Your task to perform on an android device: What's the weather going to be this weekend? Image 0: 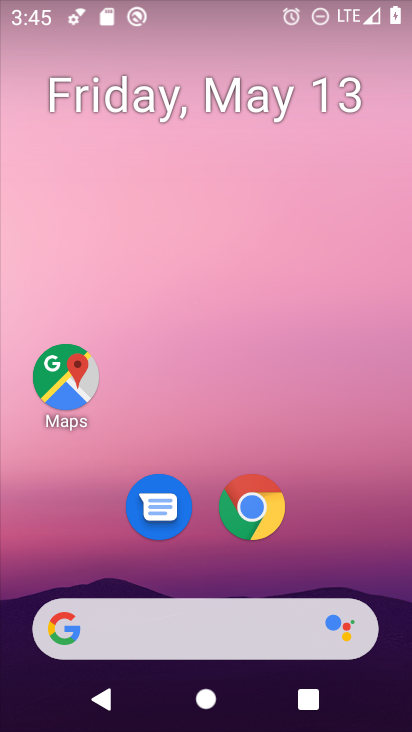
Step 0: drag from (357, 548) to (331, 236)
Your task to perform on an android device: What's the weather going to be this weekend? Image 1: 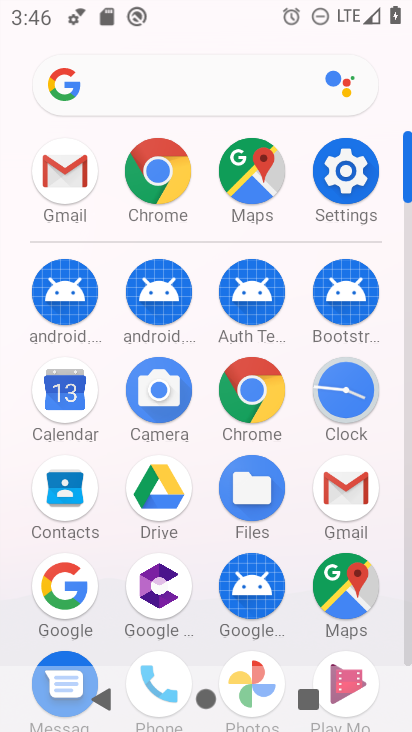
Step 1: click (63, 562)
Your task to perform on an android device: What's the weather going to be this weekend? Image 2: 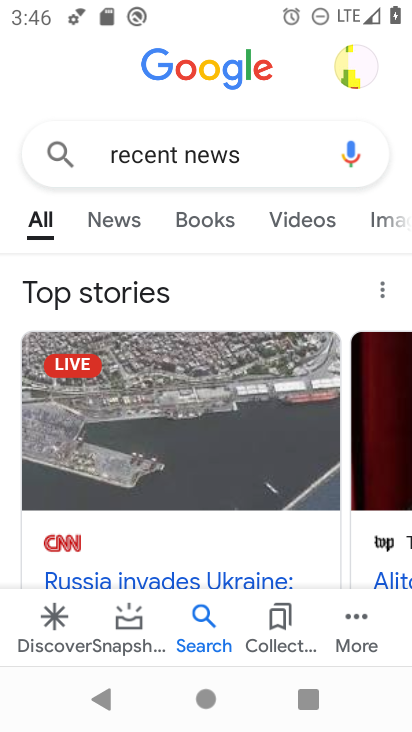
Step 2: drag from (239, 155) to (108, 151)
Your task to perform on an android device: What's the weather going to be this weekend? Image 3: 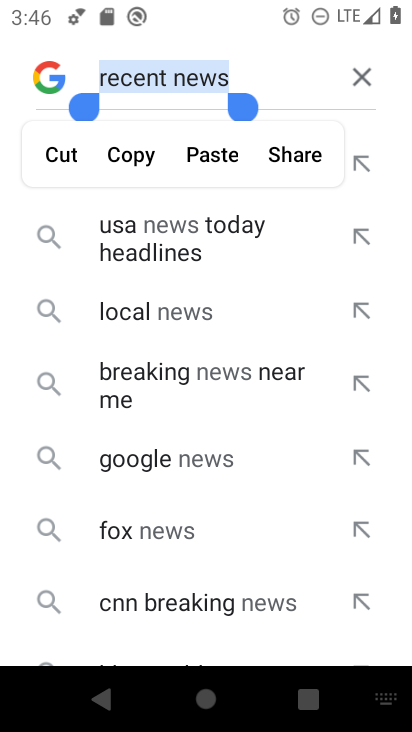
Step 3: click (348, 79)
Your task to perform on an android device: What's the weather going to be this weekend? Image 4: 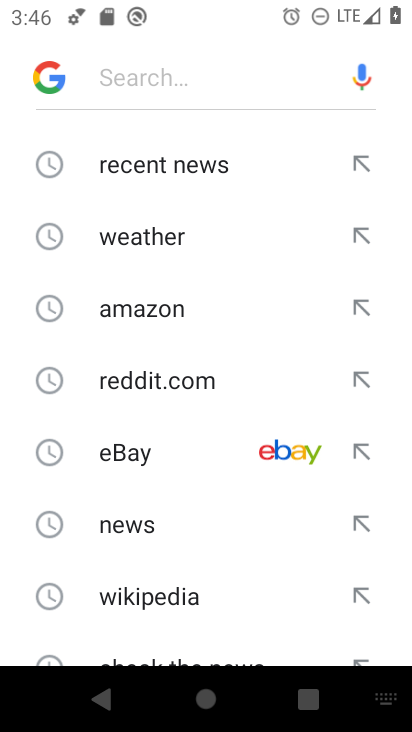
Step 4: click (209, 230)
Your task to perform on an android device: What's the weather going to be this weekend? Image 5: 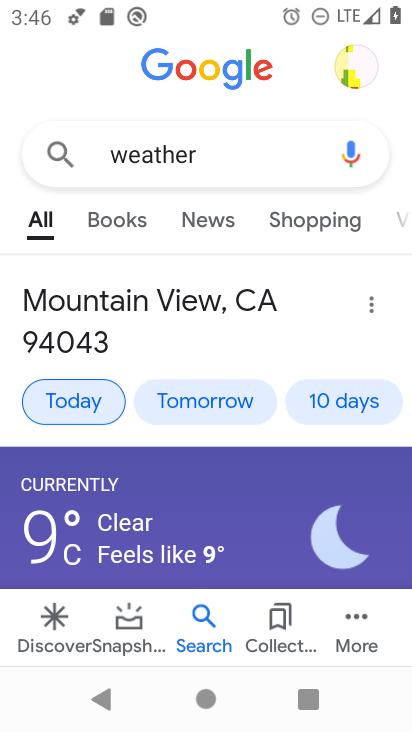
Step 5: drag from (155, 470) to (203, 239)
Your task to perform on an android device: What's the weather going to be this weekend? Image 6: 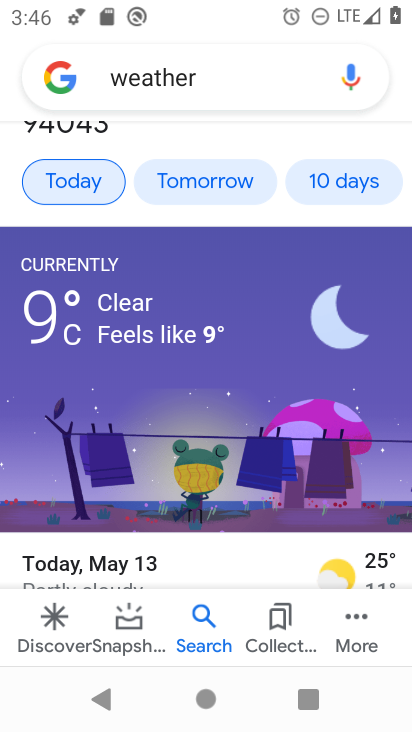
Step 6: drag from (327, 171) to (96, 173)
Your task to perform on an android device: What's the weather going to be this weekend? Image 7: 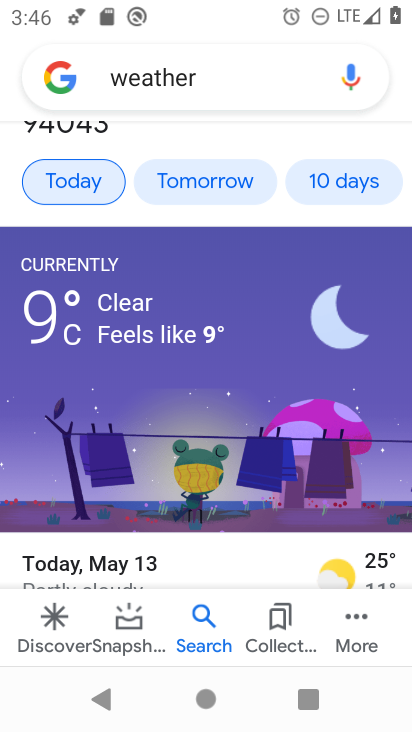
Step 7: click (335, 171)
Your task to perform on an android device: What's the weather going to be this weekend? Image 8: 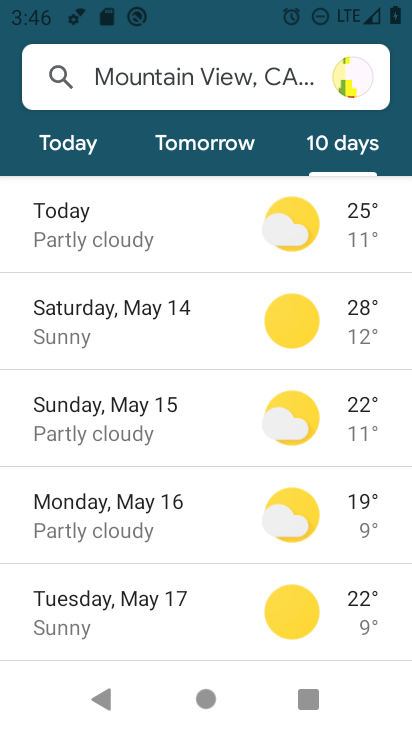
Step 8: task complete